Your task to perform on an android device: turn pop-ups on in chrome Image 0: 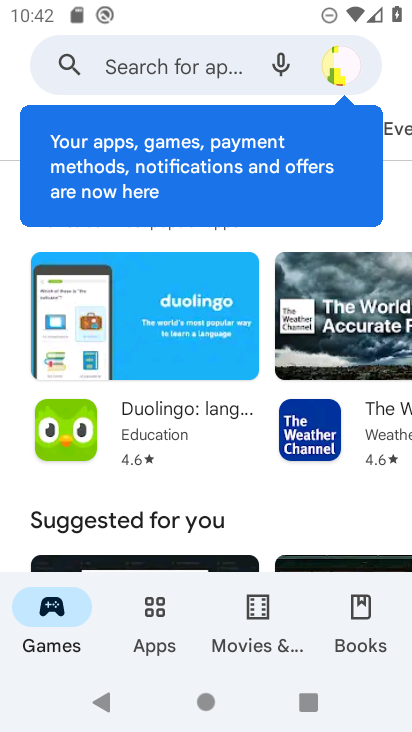
Step 0: press home button
Your task to perform on an android device: turn pop-ups on in chrome Image 1: 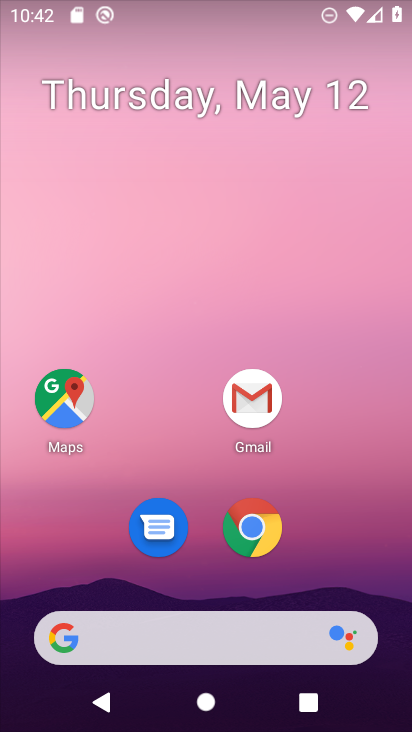
Step 1: click (261, 548)
Your task to perform on an android device: turn pop-ups on in chrome Image 2: 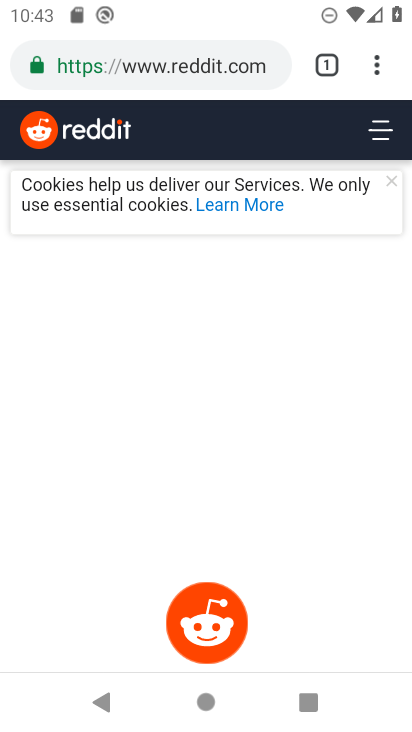
Step 2: click (383, 58)
Your task to perform on an android device: turn pop-ups on in chrome Image 3: 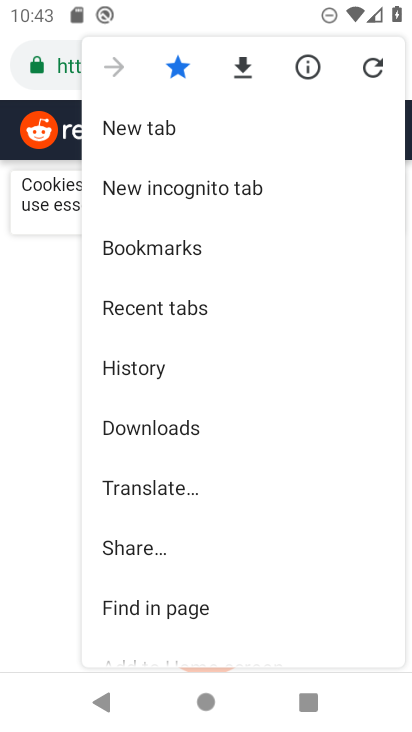
Step 3: drag from (229, 519) to (184, 299)
Your task to perform on an android device: turn pop-ups on in chrome Image 4: 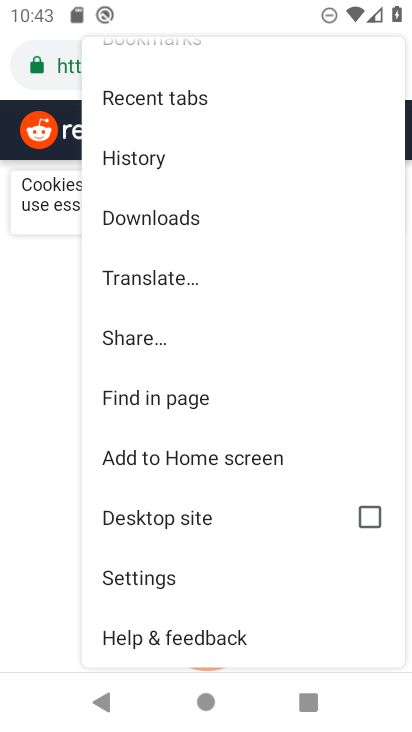
Step 4: click (138, 562)
Your task to perform on an android device: turn pop-ups on in chrome Image 5: 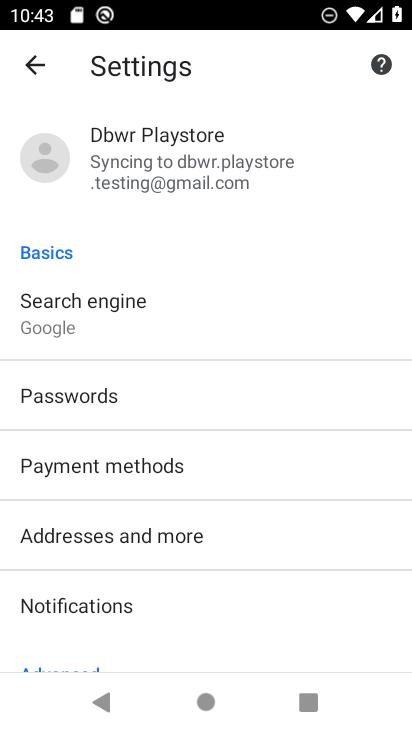
Step 5: drag from (151, 633) to (125, 287)
Your task to perform on an android device: turn pop-ups on in chrome Image 6: 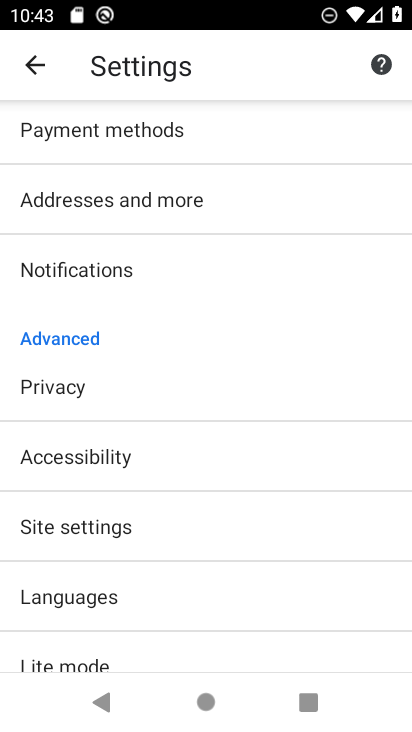
Step 6: click (124, 526)
Your task to perform on an android device: turn pop-ups on in chrome Image 7: 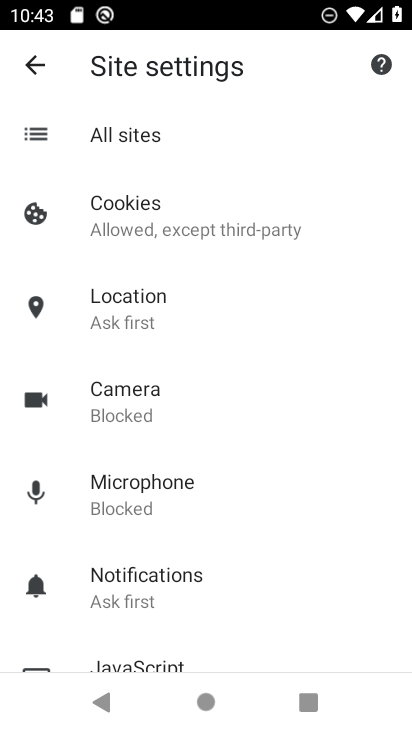
Step 7: drag from (151, 602) to (146, 476)
Your task to perform on an android device: turn pop-ups on in chrome Image 8: 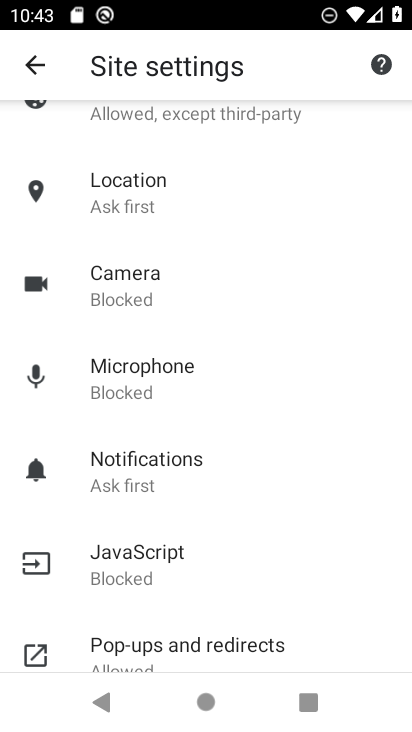
Step 8: click (167, 534)
Your task to perform on an android device: turn pop-ups on in chrome Image 9: 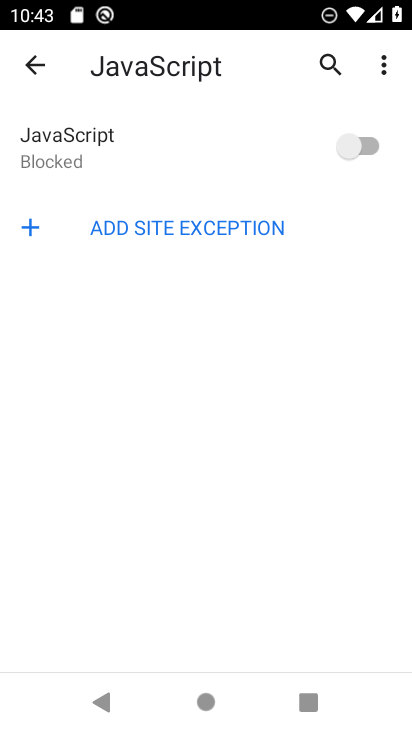
Step 9: click (324, 159)
Your task to perform on an android device: turn pop-ups on in chrome Image 10: 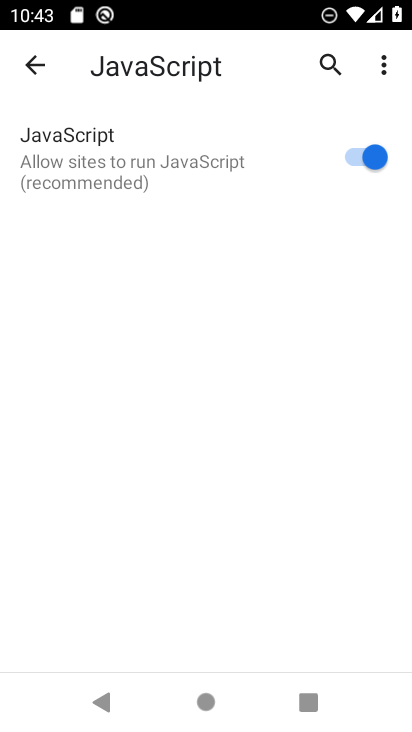
Step 10: task complete